Your task to perform on an android device: Go to Amazon Image 0: 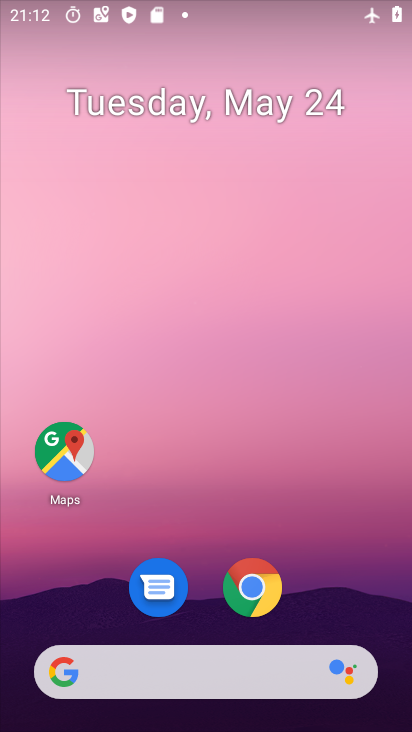
Step 0: drag from (313, 556) to (222, 44)
Your task to perform on an android device: Go to Amazon Image 1: 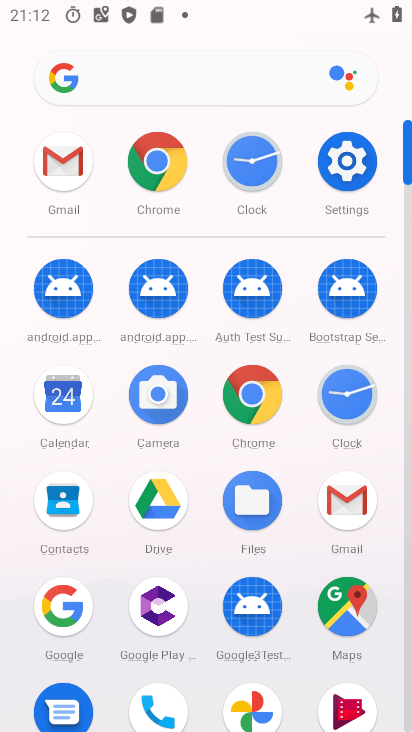
Step 1: drag from (0, 511) to (0, 303)
Your task to perform on an android device: Go to Amazon Image 2: 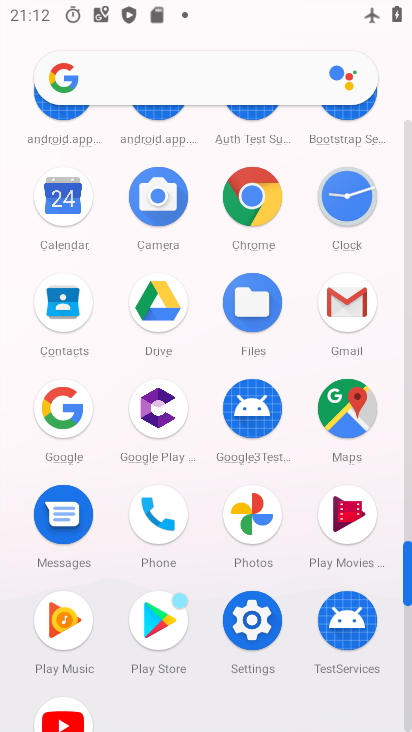
Step 2: click (254, 194)
Your task to perform on an android device: Go to Amazon Image 3: 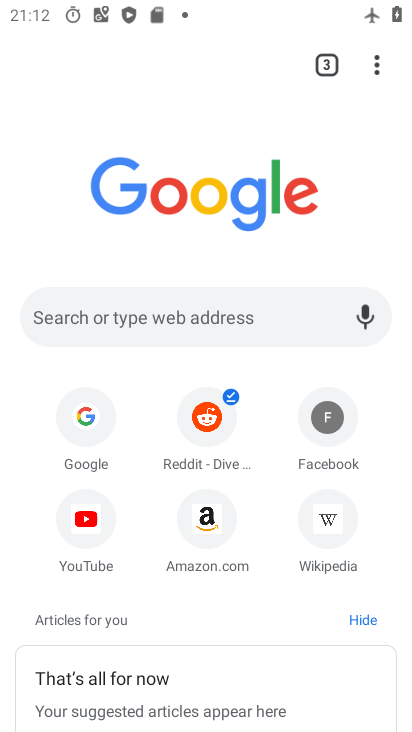
Step 3: click (199, 510)
Your task to perform on an android device: Go to Amazon Image 4: 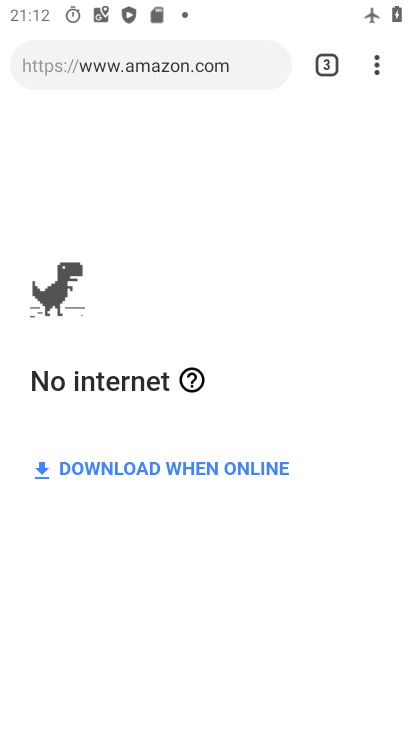
Step 4: task complete